Your task to perform on an android device: check storage Image 0: 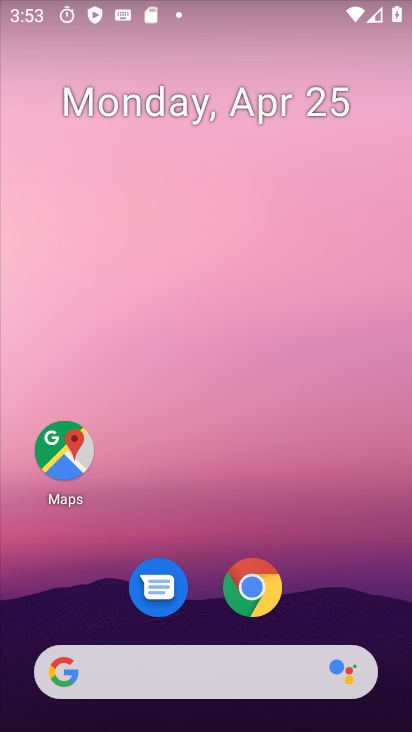
Step 0: drag from (350, 608) to (239, 123)
Your task to perform on an android device: check storage Image 1: 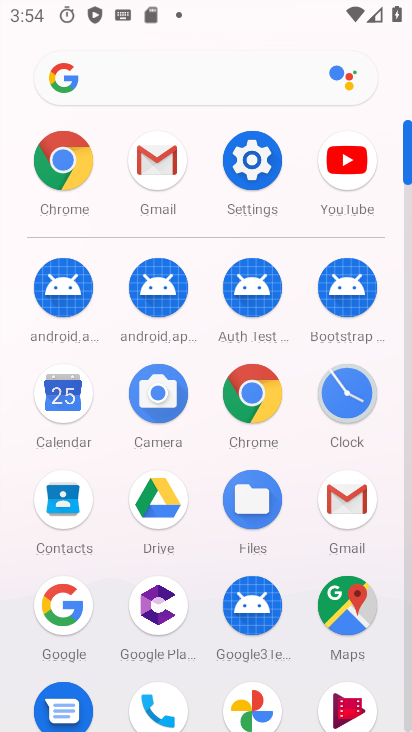
Step 1: click (239, 157)
Your task to perform on an android device: check storage Image 2: 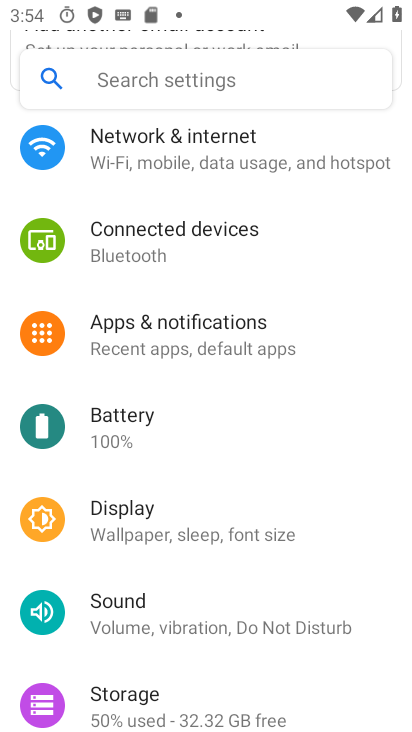
Step 2: drag from (308, 608) to (309, 171)
Your task to perform on an android device: check storage Image 3: 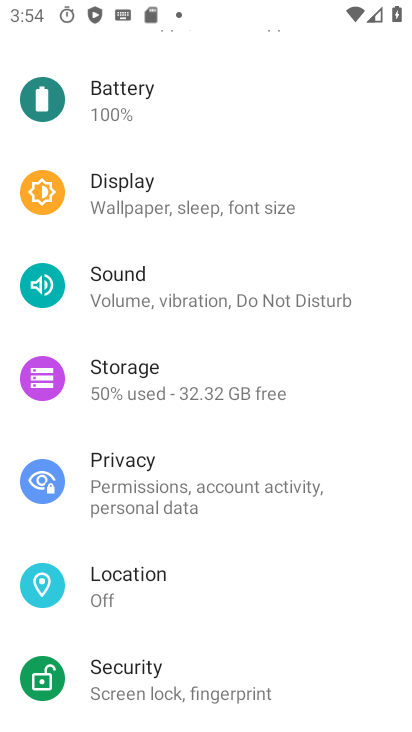
Step 3: click (183, 378)
Your task to perform on an android device: check storage Image 4: 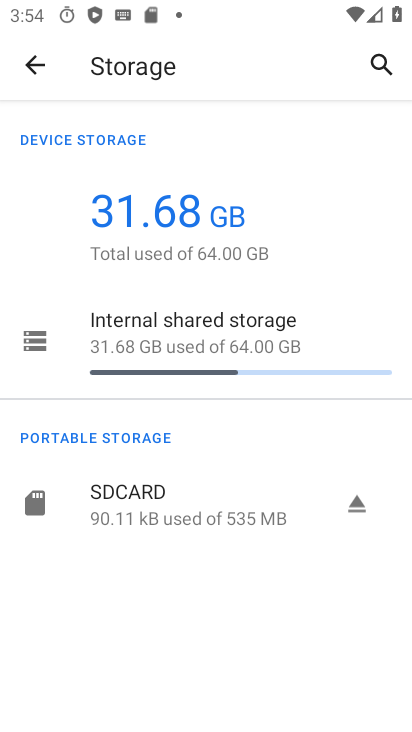
Step 4: task complete